Your task to perform on an android device: Search for vegetarian restaurants on Maps Image 0: 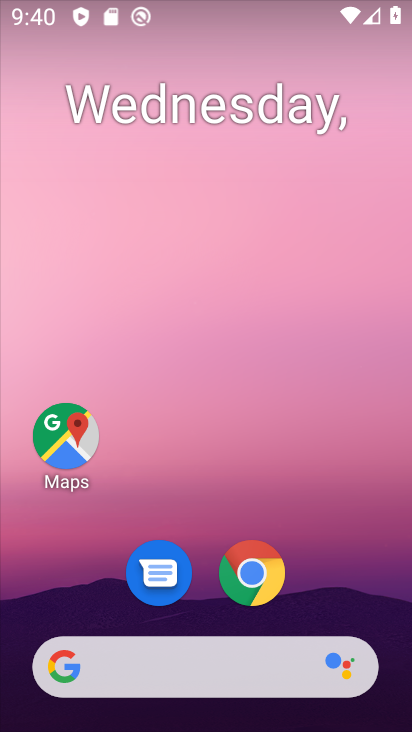
Step 0: click (74, 431)
Your task to perform on an android device: Search for vegetarian restaurants on Maps Image 1: 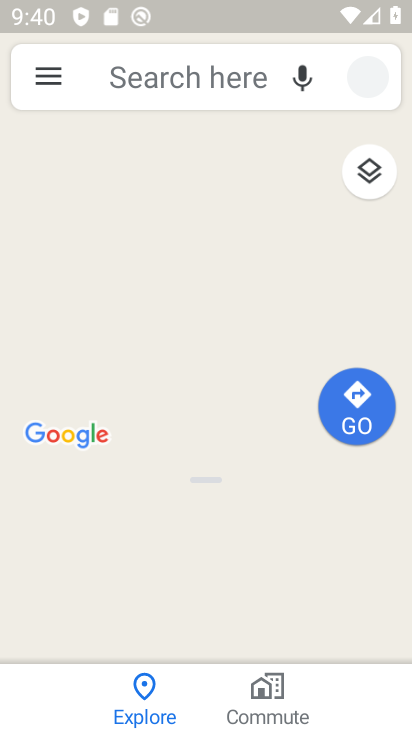
Step 1: click (179, 73)
Your task to perform on an android device: Search for vegetarian restaurants on Maps Image 2: 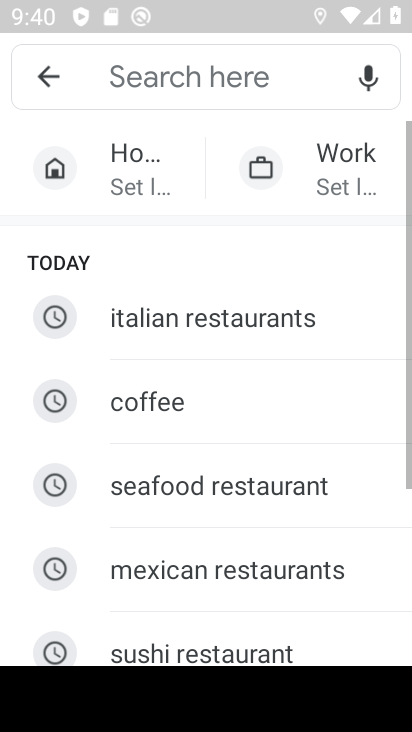
Step 2: click (214, 70)
Your task to perform on an android device: Search for vegetarian restaurants on Maps Image 3: 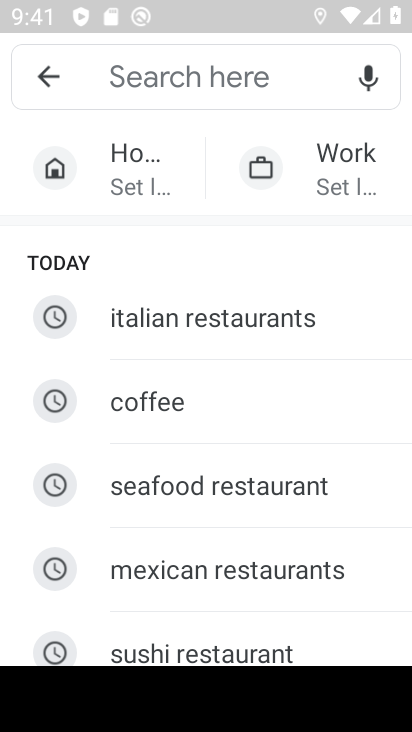
Step 3: type " vegetarian restaurants "
Your task to perform on an android device: Search for vegetarian restaurants on Maps Image 4: 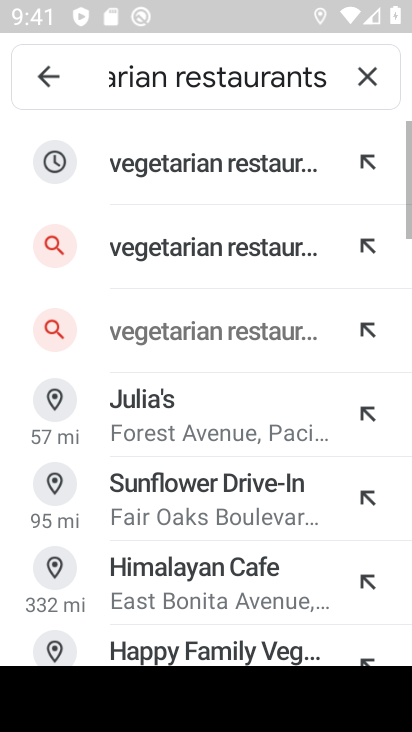
Step 4: click (159, 146)
Your task to perform on an android device: Search for vegetarian restaurants on Maps Image 5: 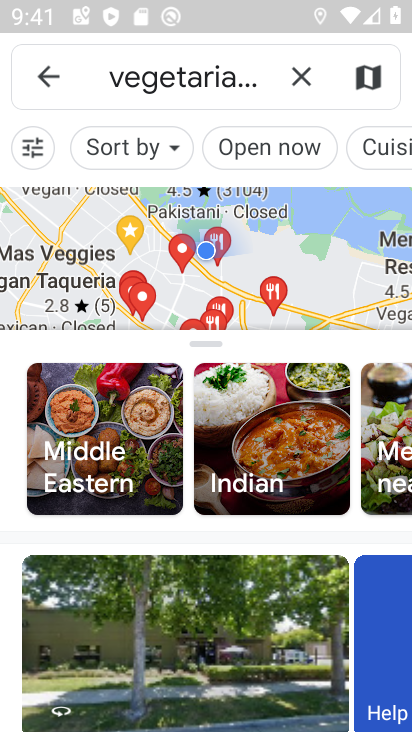
Step 5: task complete